Your task to perform on an android device: find which apps use the phone's location Image 0: 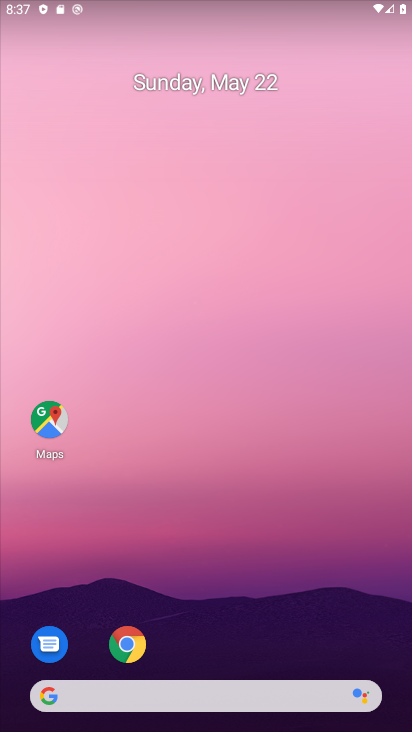
Step 0: drag from (230, 692) to (220, 22)
Your task to perform on an android device: find which apps use the phone's location Image 1: 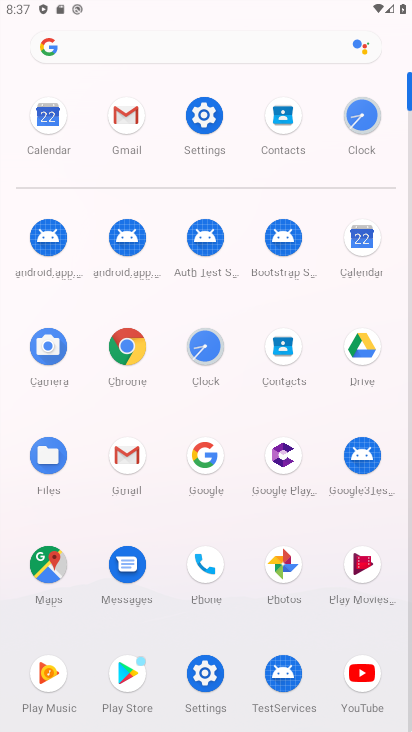
Step 1: click (199, 134)
Your task to perform on an android device: find which apps use the phone's location Image 2: 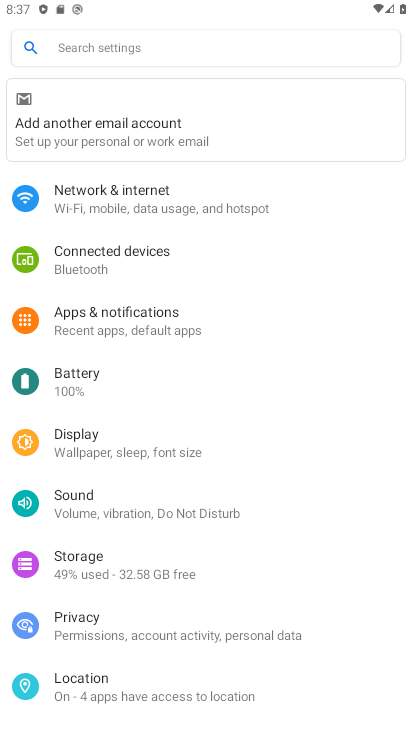
Step 2: click (85, 683)
Your task to perform on an android device: find which apps use the phone's location Image 3: 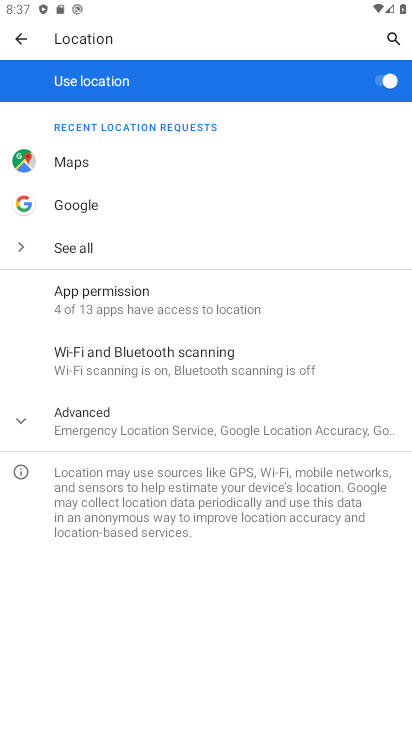
Step 3: click (132, 287)
Your task to perform on an android device: find which apps use the phone's location Image 4: 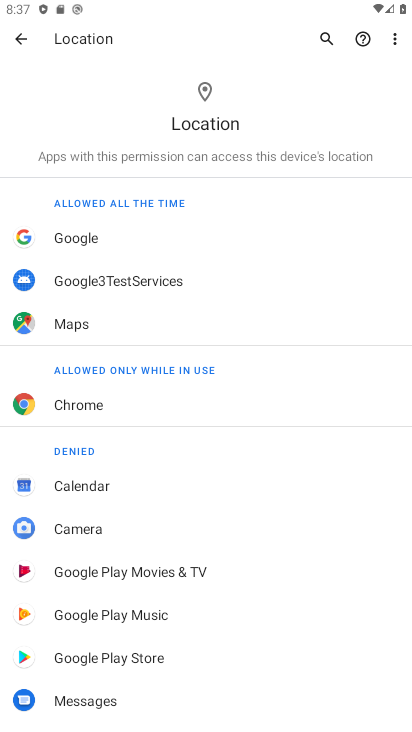
Step 4: task complete